Your task to perform on an android device: What is the recent news? Image 0: 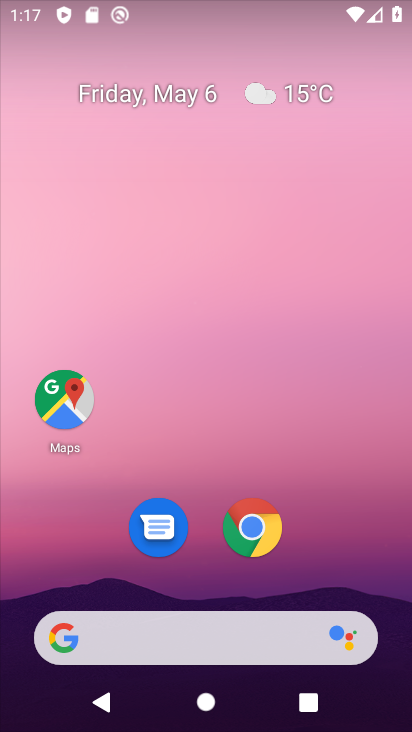
Step 0: click (220, 666)
Your task to perform on an android device: What is the recent news? Image 1: 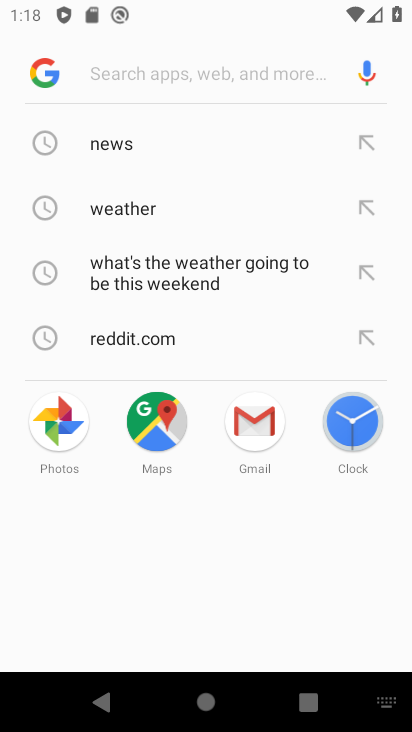
Step 1: type "recent news"
Your task to perform on an android device: What is the recent news? Image 2: 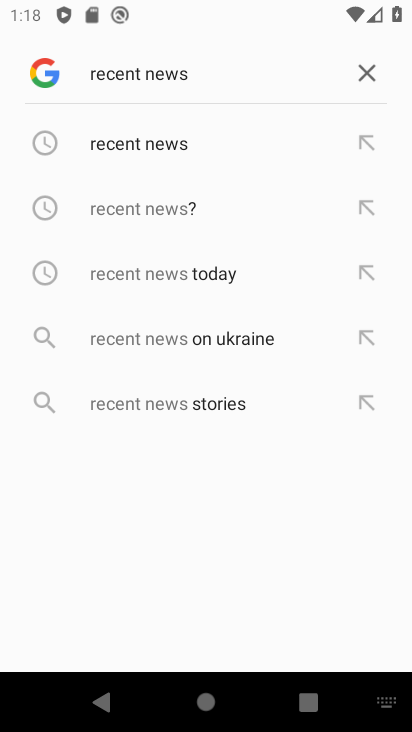
Step 2: click (232, 135)
Your task to perform on an android device: What is the recent news? Image 3: 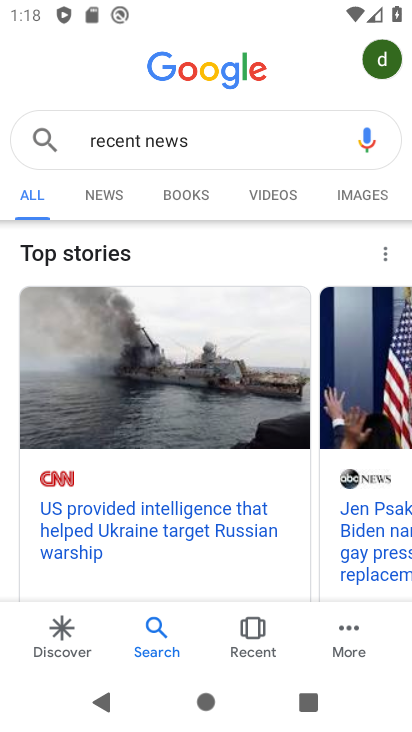
Step 3: task complete